Your task to perform on an android device: turn notification dots on Image 0: 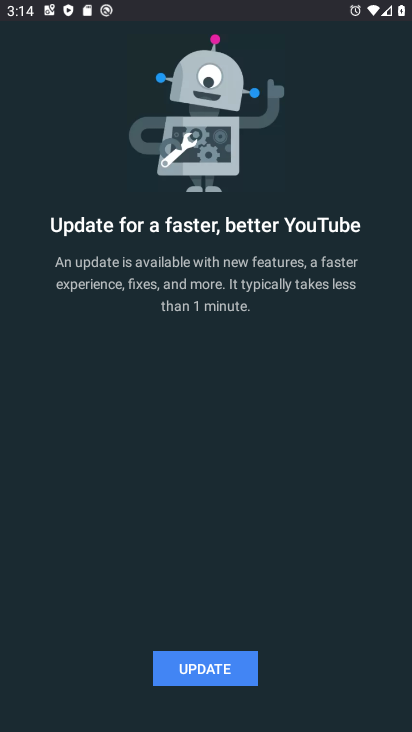
Step 0: press home button
Your task to perform on an android device: turn notification dots on Image 1: 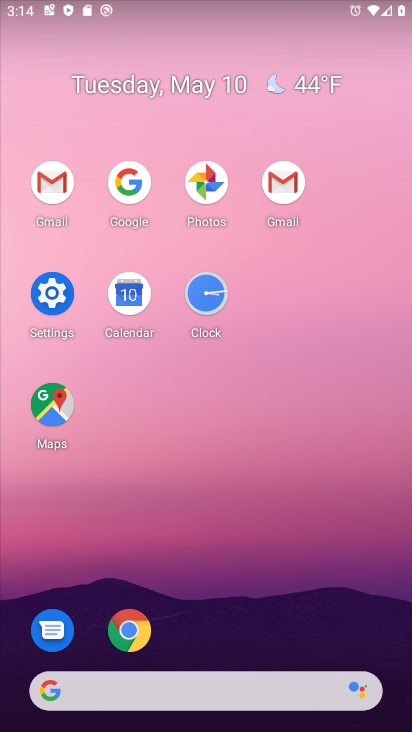
Step 1: click (57, 287)
Your task to perform on an android device: turn notification dots on Image 2: 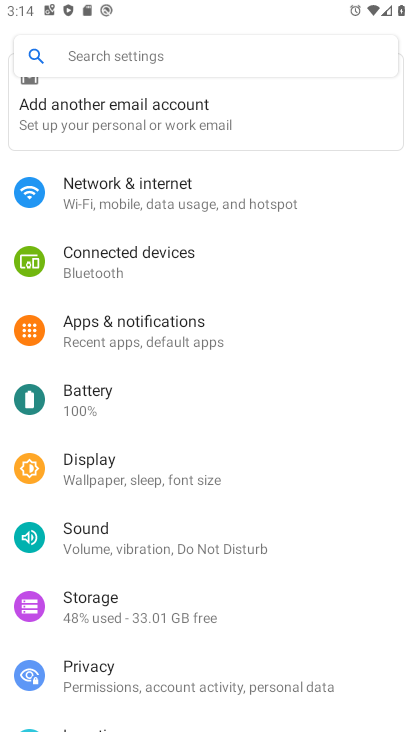
Step 2: click (207, 318)
Your task to perform on an android device: turn notification dots on Image 3: 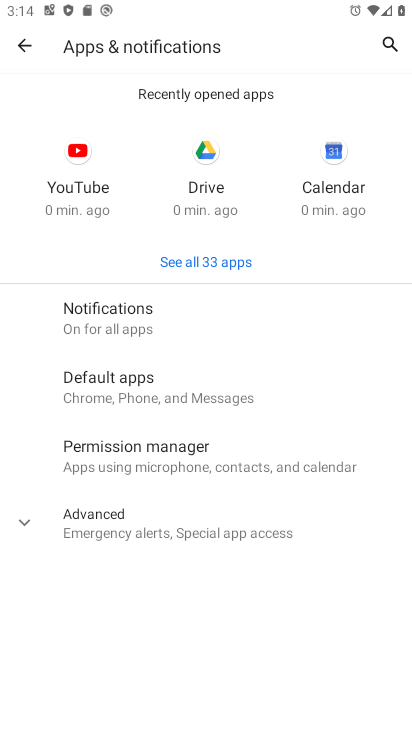
Step 3: click (207, 318)
Your task to perform on an android device: turn notification dots on Image 4: 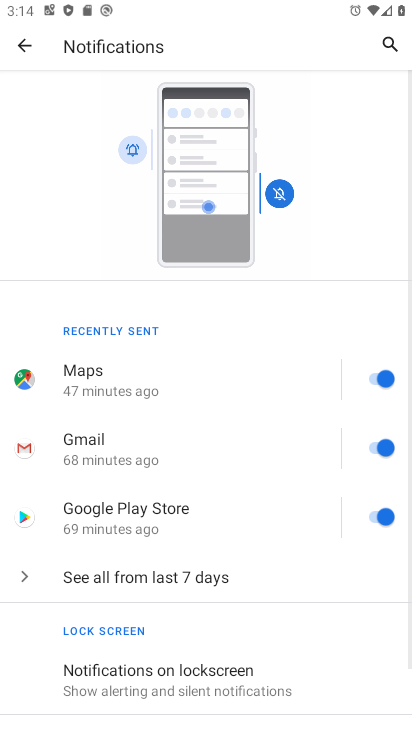
Step 4: drag from (223, 635) to (190, 271)
Your task to perform on an android device: turn notification dots on Image 5: 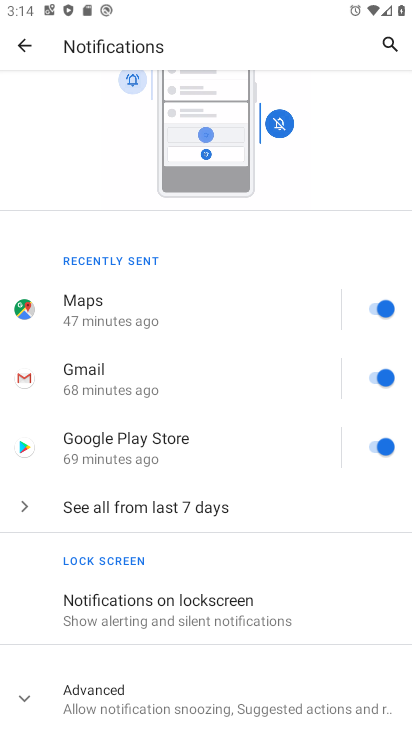
Step 5: click (154, 702)
Your task to perform on an android device: turn notification dots on Image 6: 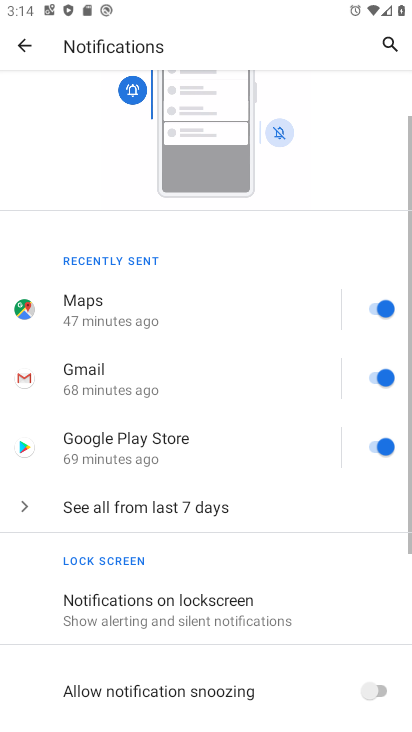
Step 6: task complete